Your task to perform on an android device: set an alarm Image 0: 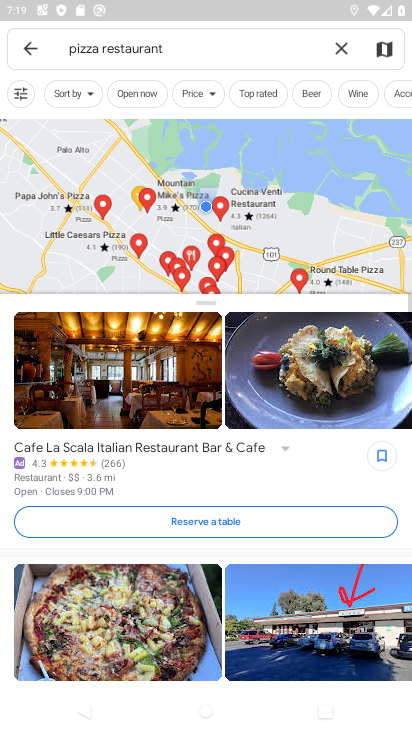
Step 0: press home button
Your task to perform on an android device: set an alarm Image 1: 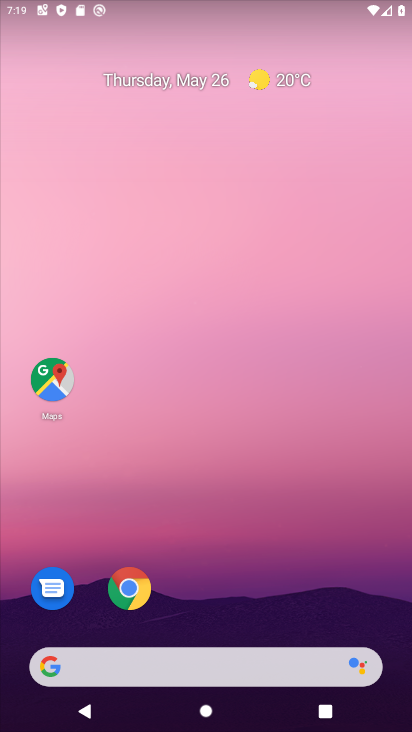
Step 1: drag from (364, 602) to (278, 2)
Your task to perform on an android device: set an alarm Image 2: 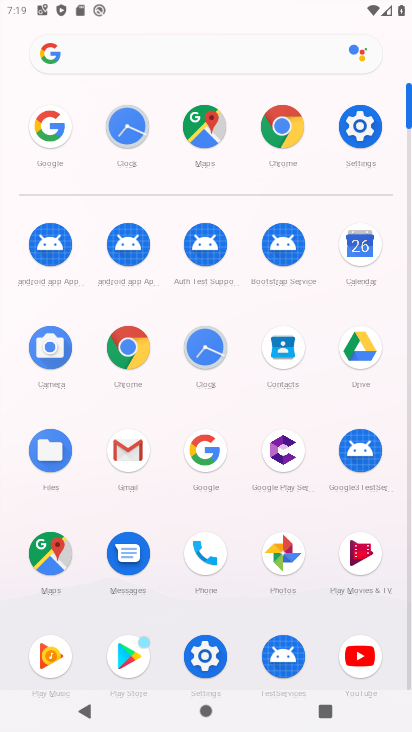
Step 2: click (210, 348)
Your task to perform on an android device: set an alarm Image 3: 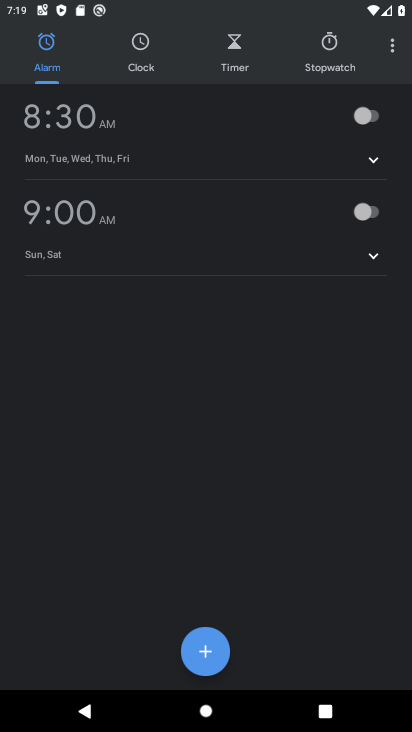
Step 3: click (353, 121)
Your task to perform on an android device: set an alarm Image 4: 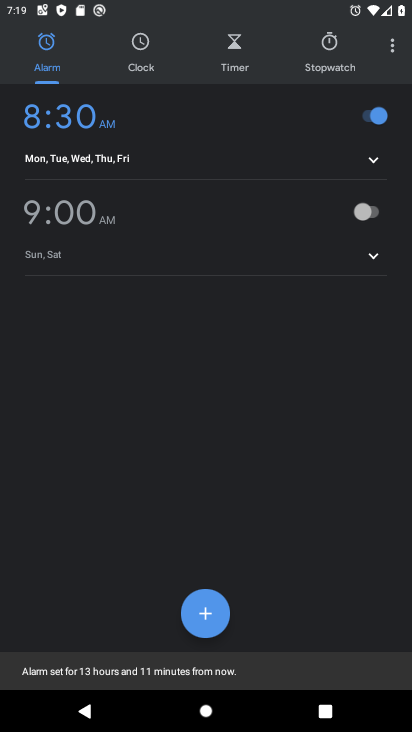
Step 4: task complete